Your task to perform on an android device: turn off notifications settings in the gmail app Image 0: 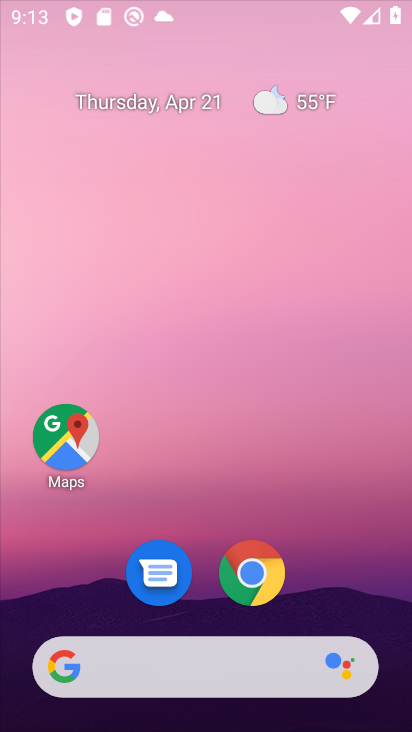
Step 0: drag from (323, 601) to (266, 191)
Your task to perform on an android device: turn off notifications settings in the gmail app Image 1: 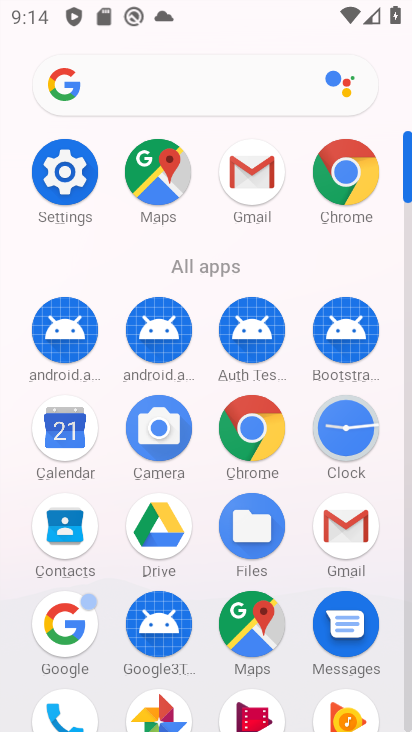
Step 1: drag from (292, 671) to (311, 336)
Your task to perform on an android device: turn off notifications settings in the gmail app Image 2: 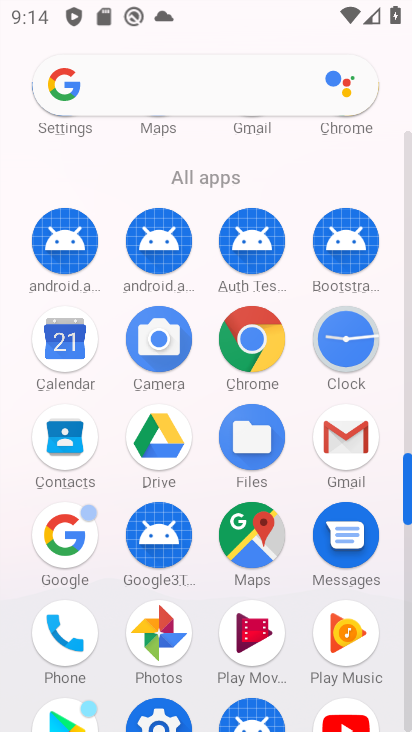
Step 2: click (348, 469)
Your task to perform on an android device: turn off notifications settings in the gmail app Image 3: 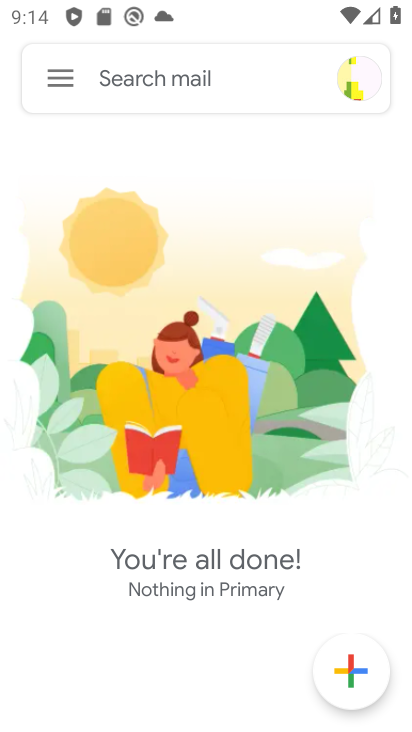
Step 3: click (73, 79)
Your task to perform on an android device: turn off notifications settings in the gmail app Image 4: 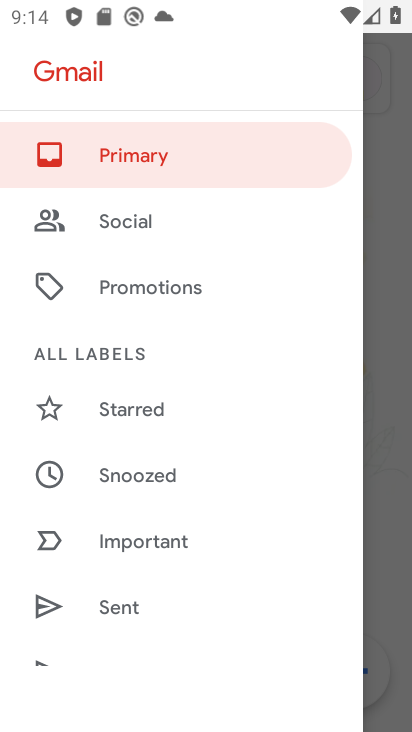
Step 4: drag from (186, 580) to (199, 166)
Your task to perform on an android device: turn off notifications settings in the gmail app Image 5: 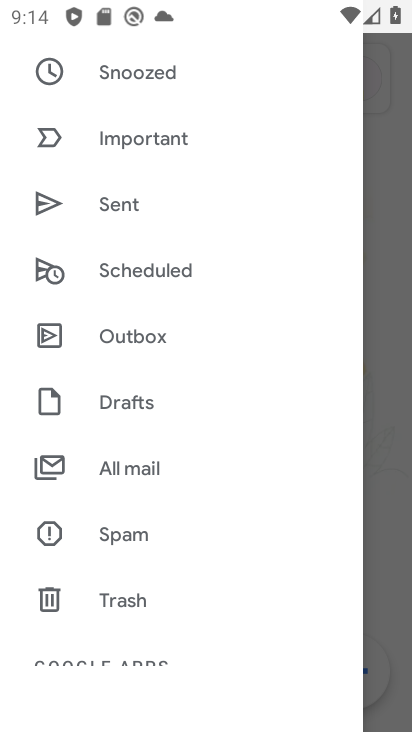
Step 5: drag from (167, 552) to (189, 223)
Your task to perform on an android device: turn off notifications settings in the gmail app Image 6: 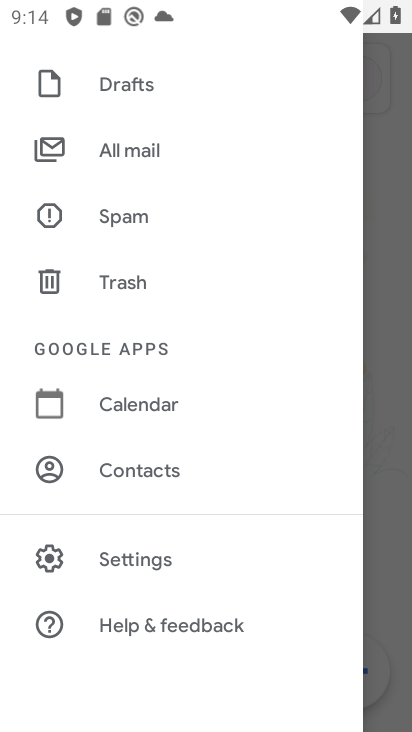
Step 6: click (116, 562)
Your task to perform on an android device: turn off notifications settings in the gmail app Image 7: 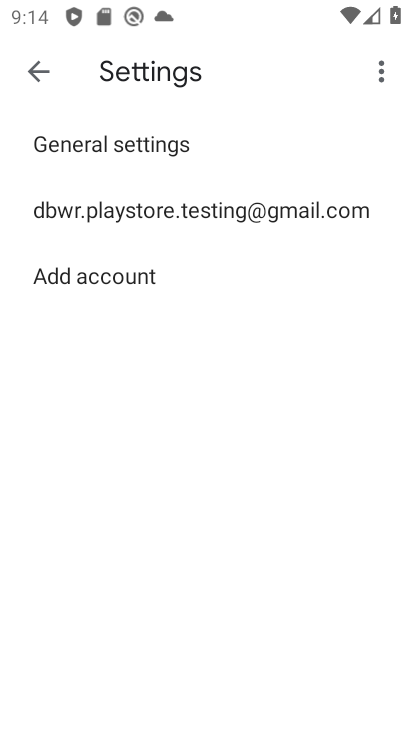
Step 7: click (172, 217)
Your task to perform on an android device: turn off notifications settings in the gmail app Image 8: 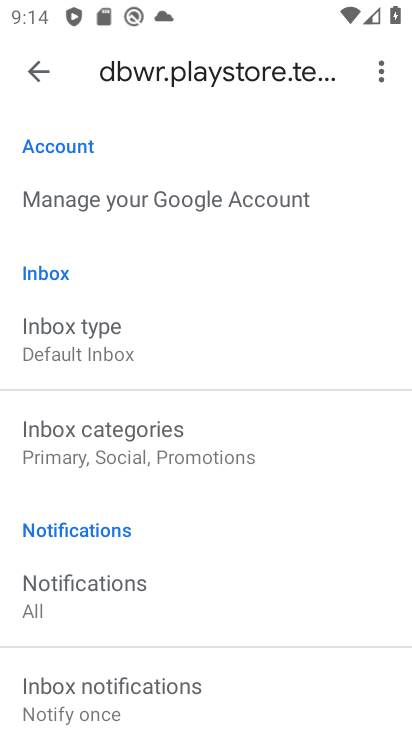
Step 8: click (92, 598)
Your task to perform on an android device: turn off notifications settings in the gmail app Image 9: 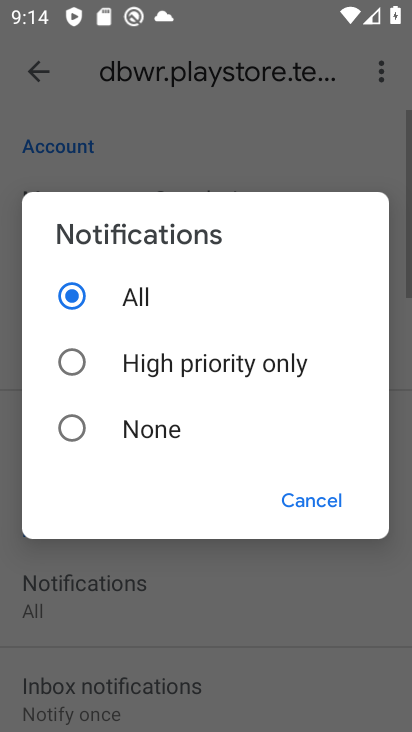
Step 9: click (75, 438)
Your task to perform on an android device: turn off notifications settings in the gmail app Image 10: 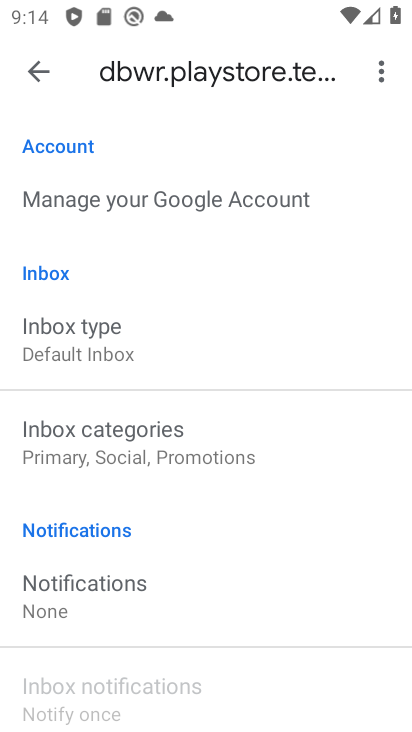
Step 10: task complete